Your task to perform on an android device: Go to battery settings Image 0: 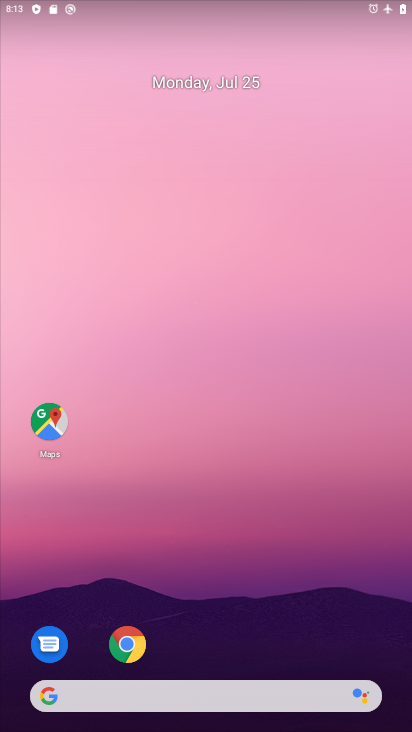
Step 0: drag from (193, 542) to (313, 66)
Your task to perform on an android device: Go to battery settings Image 1: 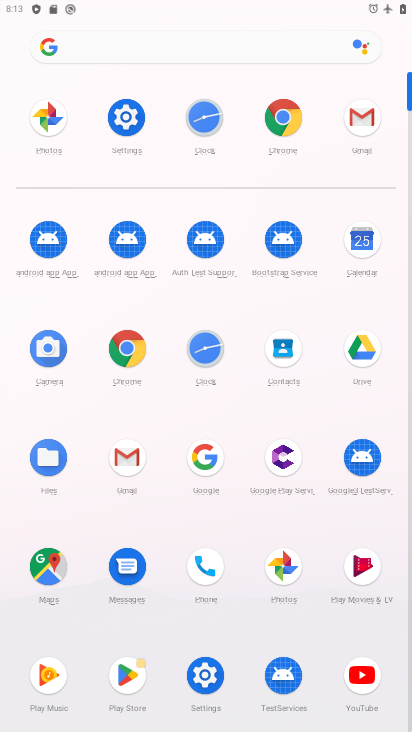
Step 1: click (202, 666)
Your task to perform on an android device: Go to battery settings Image 2: 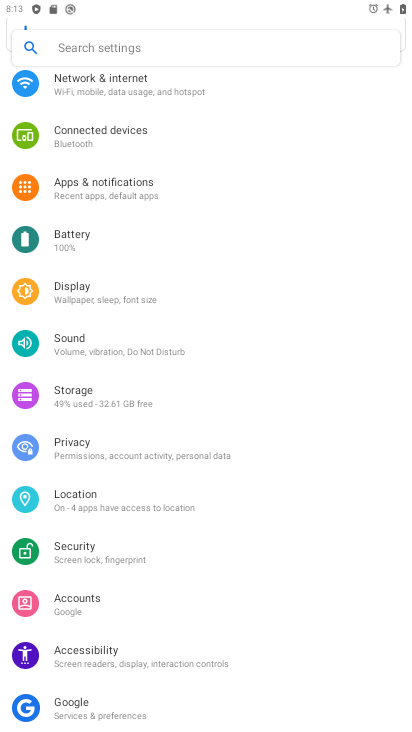
Step 2: click (79, 245)
Your task to perform on an android device: Go to battery settings Image 3: 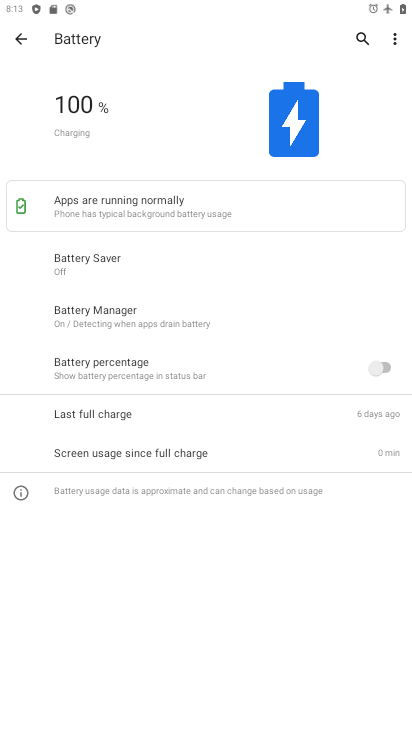
Step 3: task complete